Your task to perform on an android device: Show the shopping cart on amazon.com. Search for "apple airpods" on amazon.com, select the first entry, and add it to the cart. Image 0: 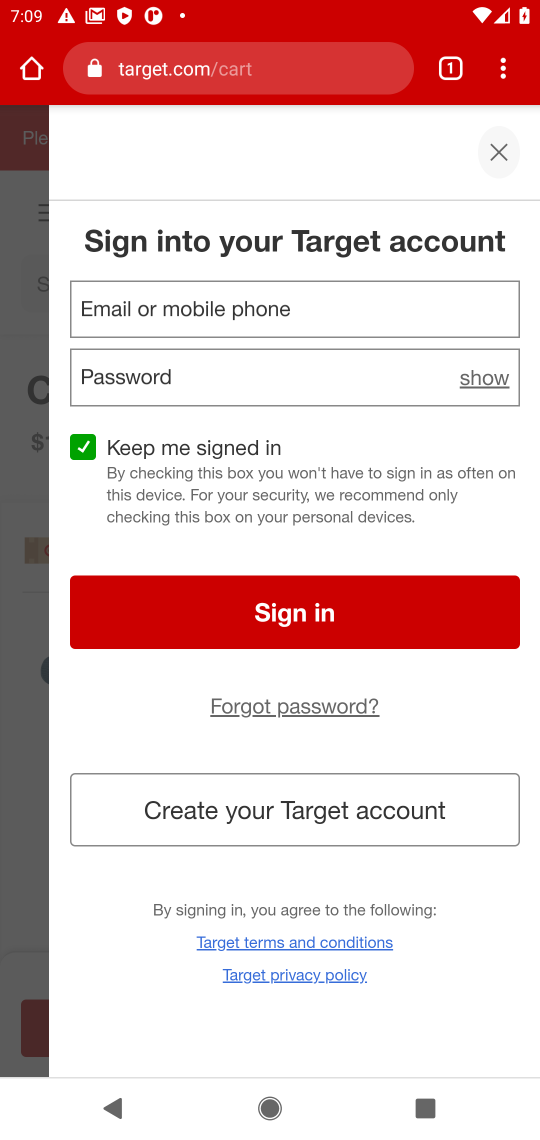
Step 0: click (495, 145)
Your task to perform on an android device: Show the shopping cart on amazon.com. Search for "apple airpods" on amazon.com, select the first entry, and add it to the cart. Image 1: 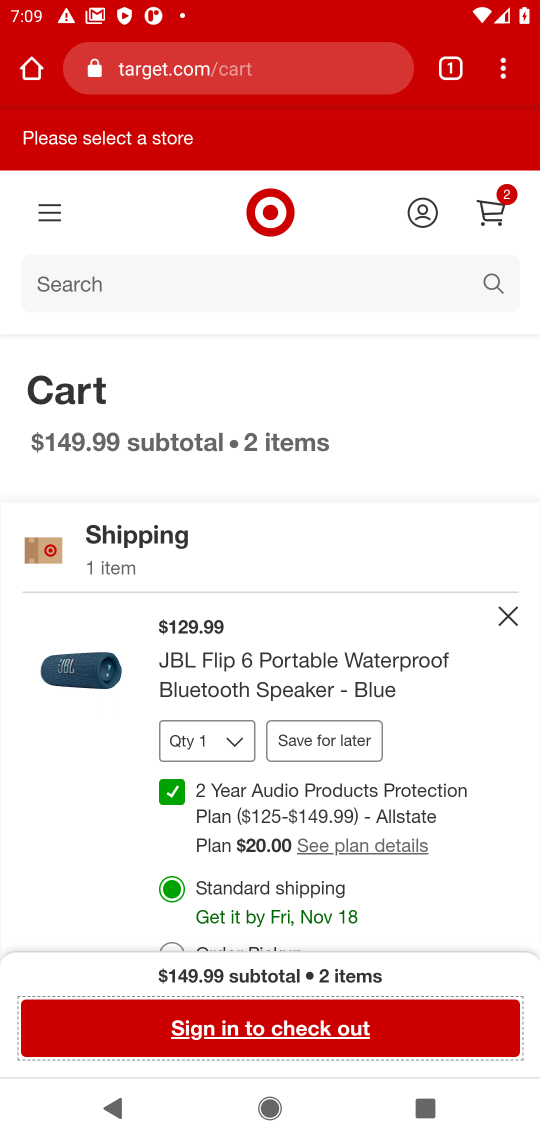
Step 1: task complete